Your task to perform on an android device: delete the emails in spam in the gmail app Image 0: 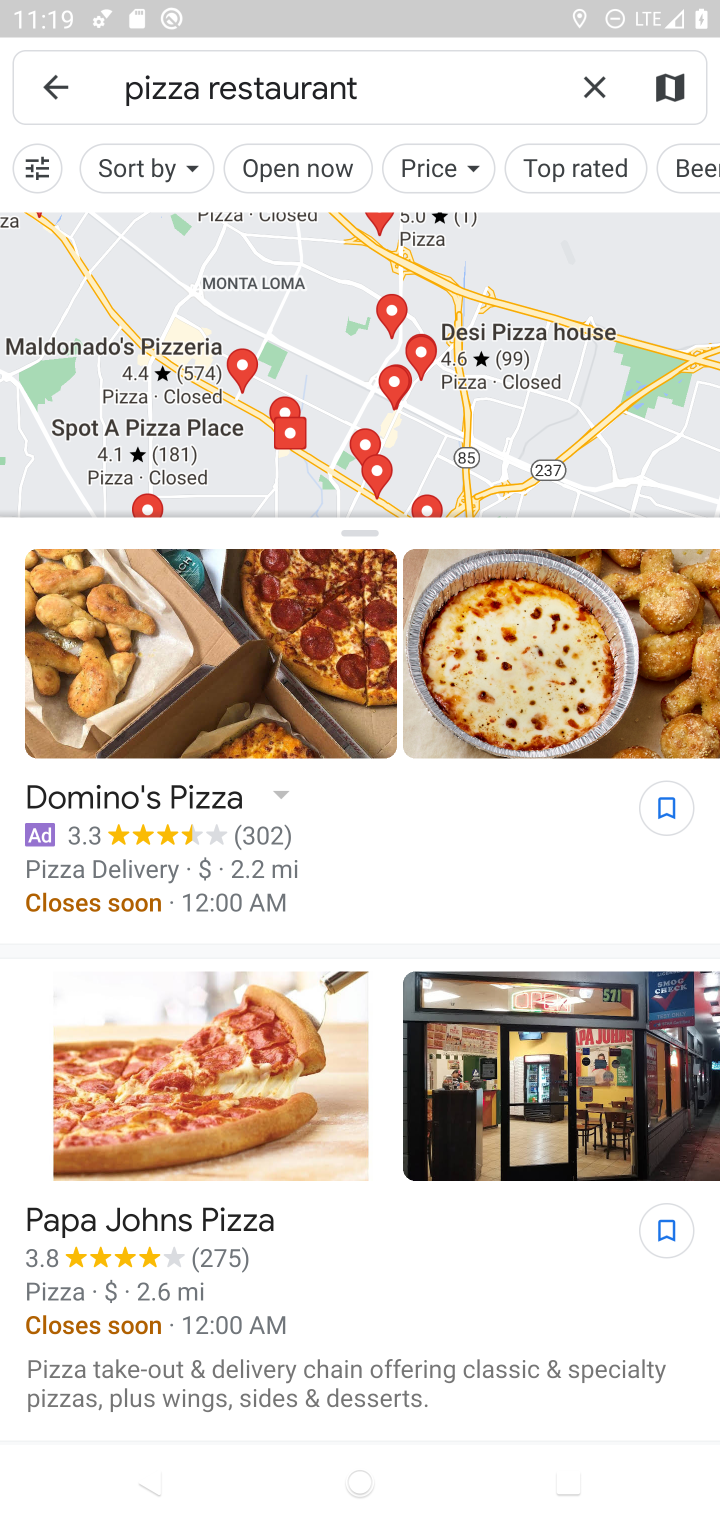
Step 0: press home button
Your task to perform on an android device: delete the emails in spam in the gmail app Image 1: 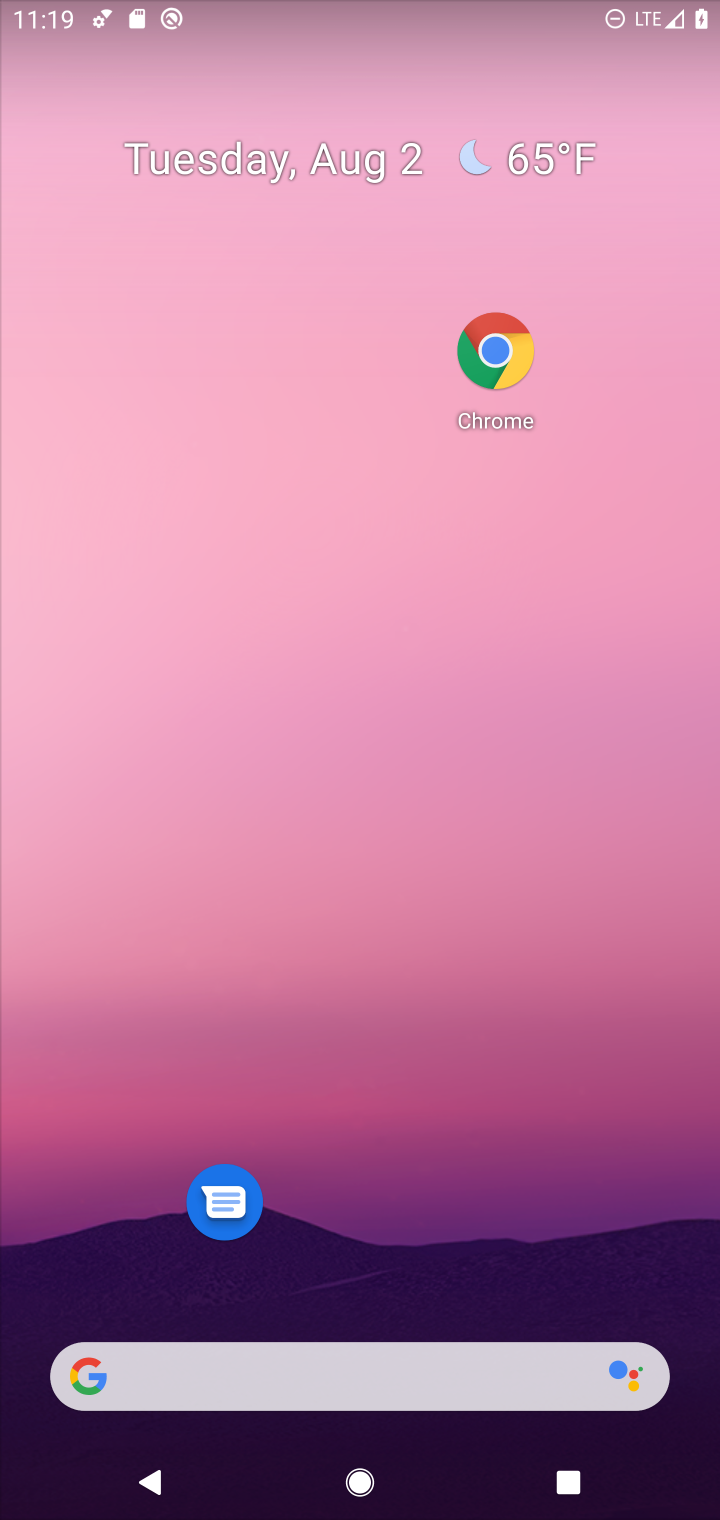
Step 1: drag from (361, 1275) to (333, 150)
Your task to perform on an android device: delete the emails in spam in the gmail app Image 2: 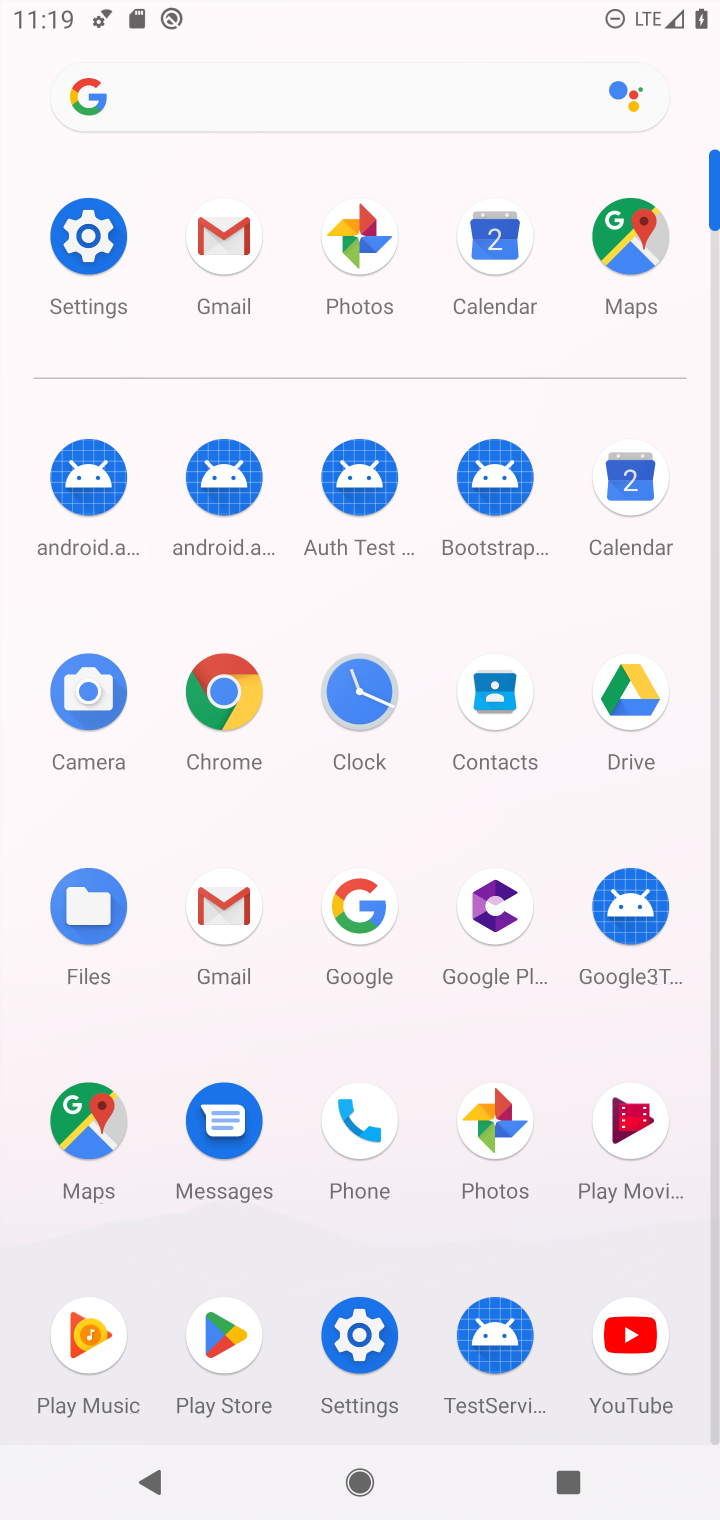
Step 2: click (230, 245)
Your task to perform on an android device: delete the emails in spam in the gmail app Image 3: 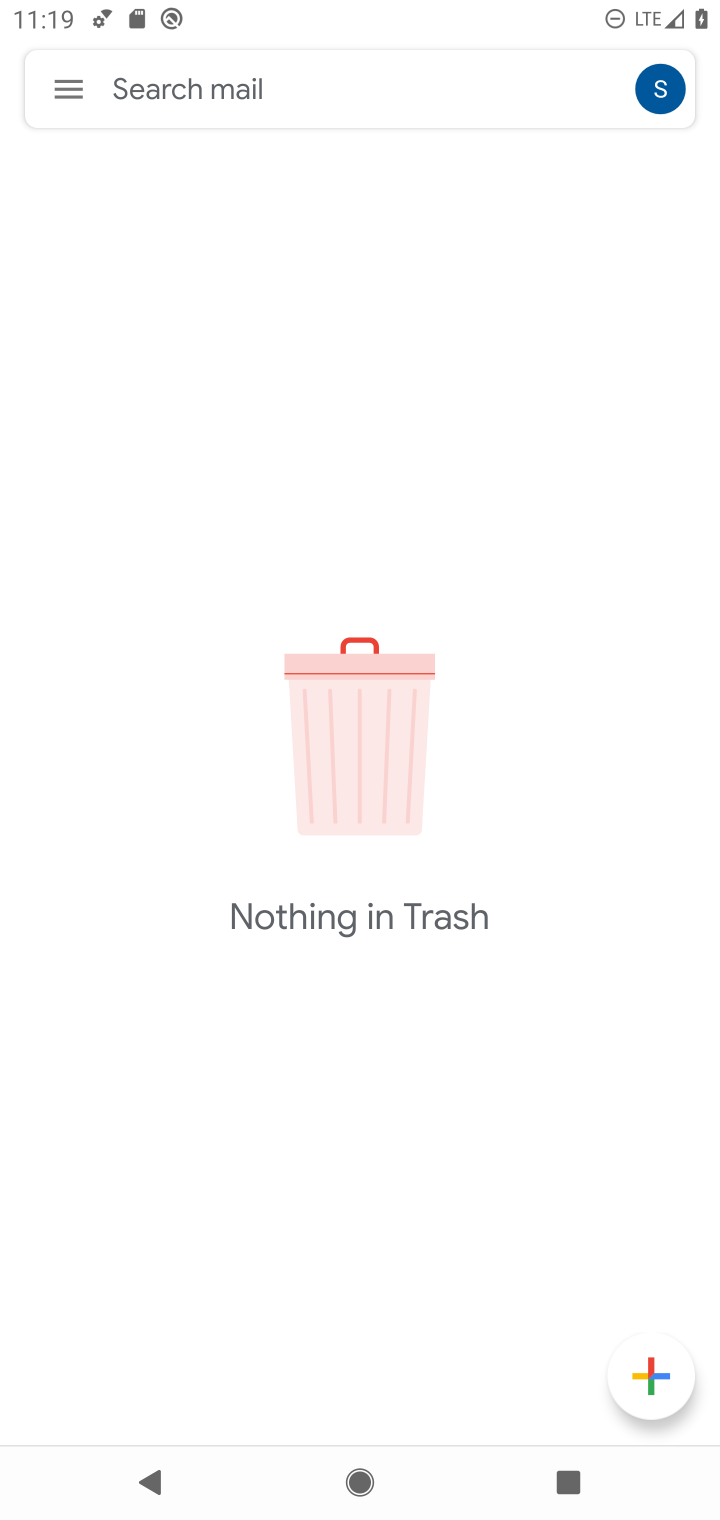
Step 3: click (61, 88)
Your task to perform on an android device: delete the emails in spam in the gmail app Image 4: 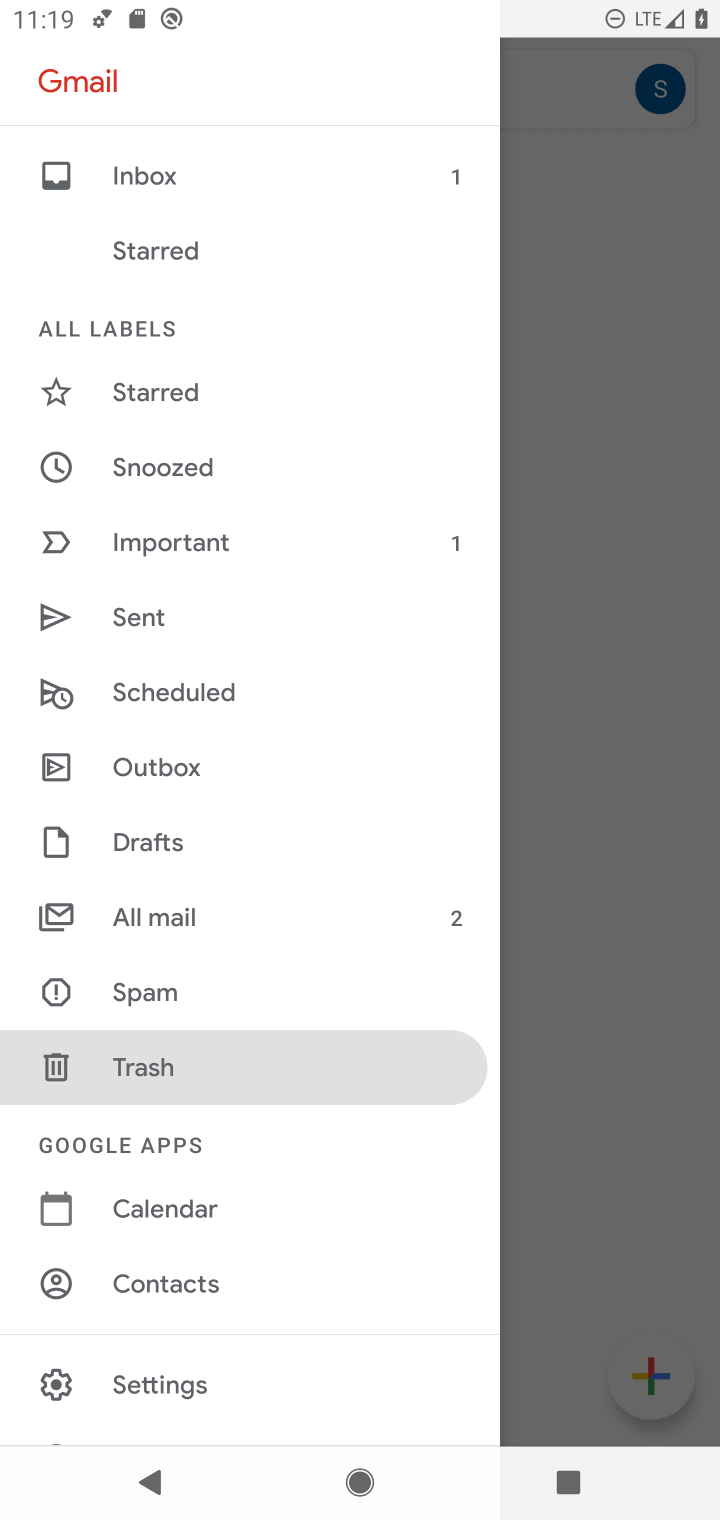
Step 4: click (139, 981)
Your task to perform on an android device: delete the emails in spam in the gmail app Image 5: 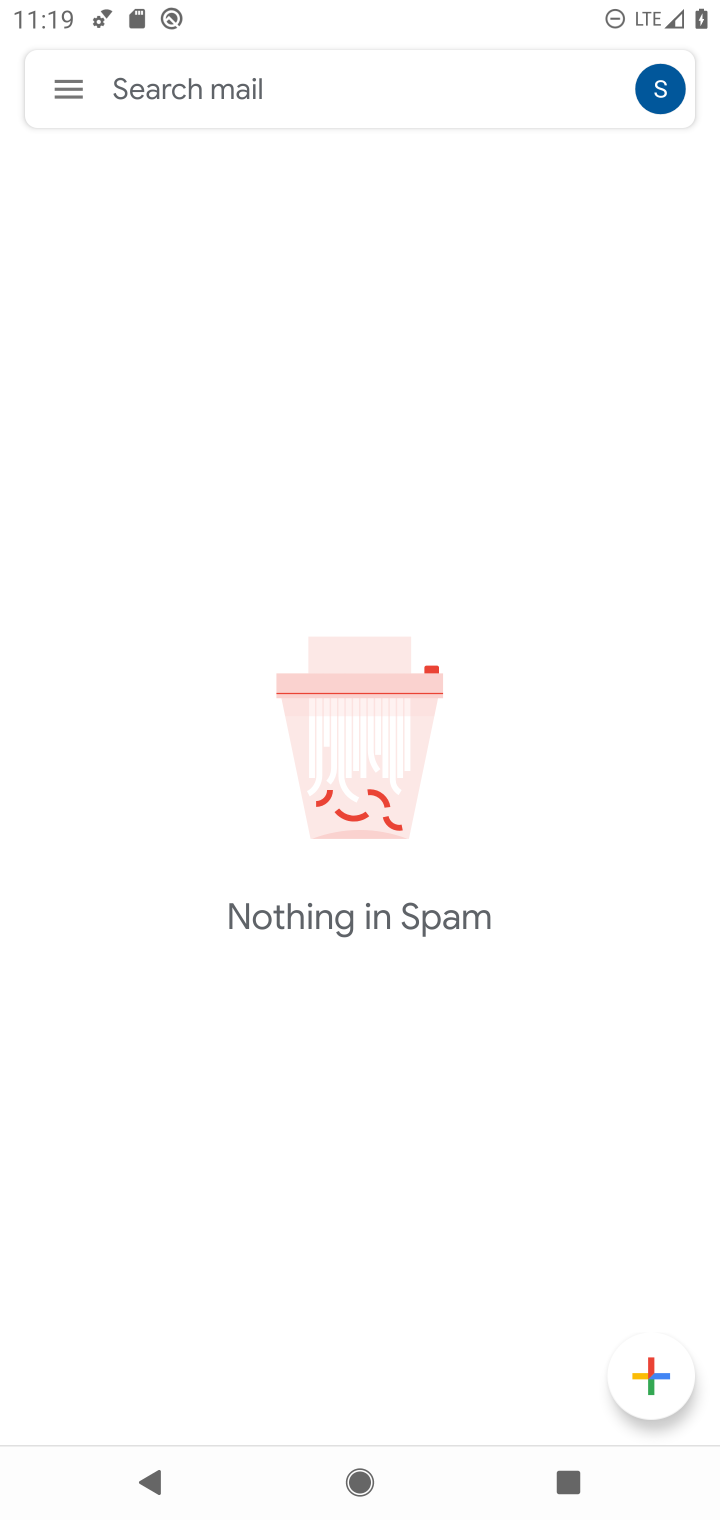
Step 5: task complete